Your task to perform on an android device: open app "Viber Messenger" (install if not already installed) and go to login screen Image 0: 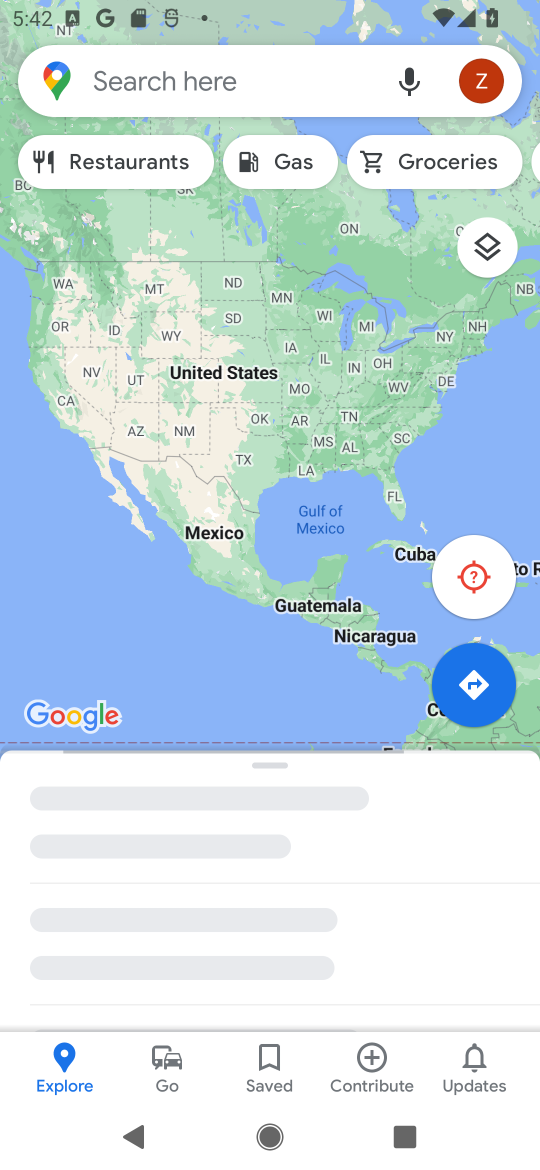
Step 0: press home button
Your task to perform on an android device: open app "Viber Messenger" (install if not already installed) and go to login screen Image 1: 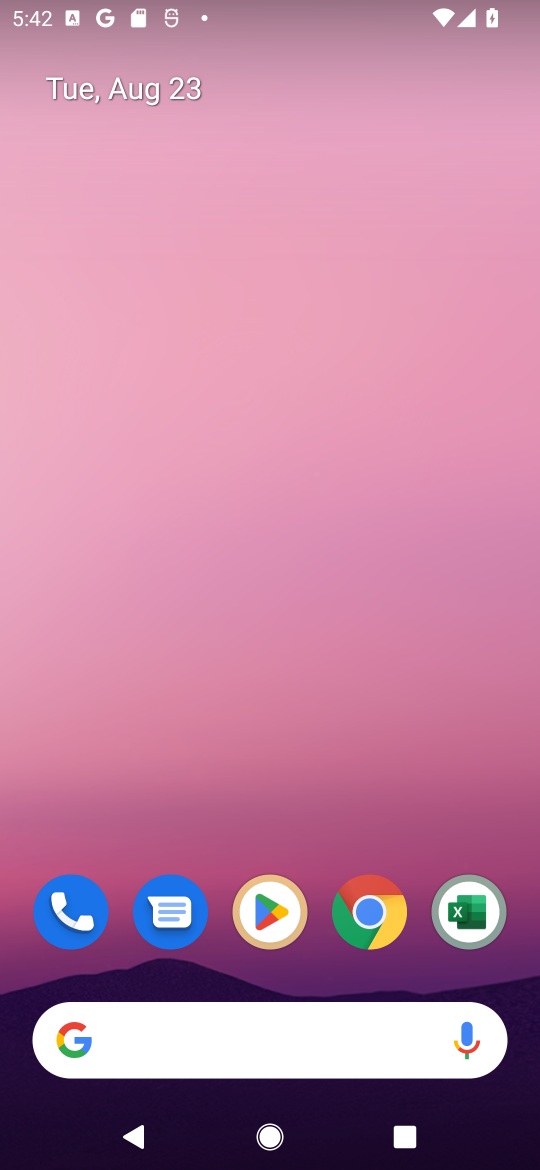
Step 1: click (249, 926)
Your task to perform on an android device: open app "Viber Messenger" (install if not already installed) and go to login screen Image 2: 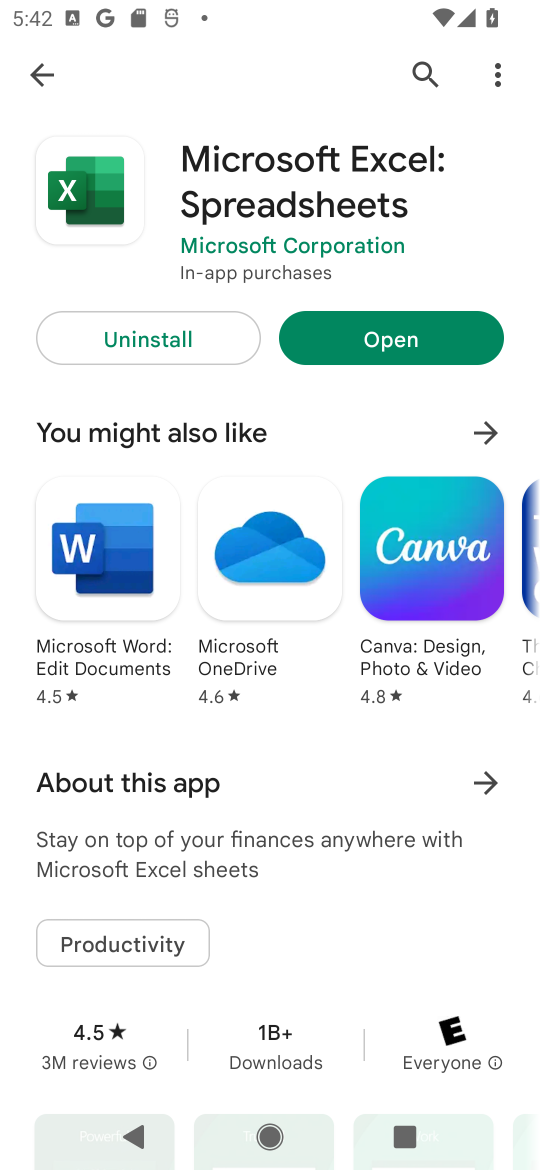
Step 2: click (42, 73)
Your task to perform on an android device: open app "Viber Messenger" (install if not already installed) and go to login screen Image 3: 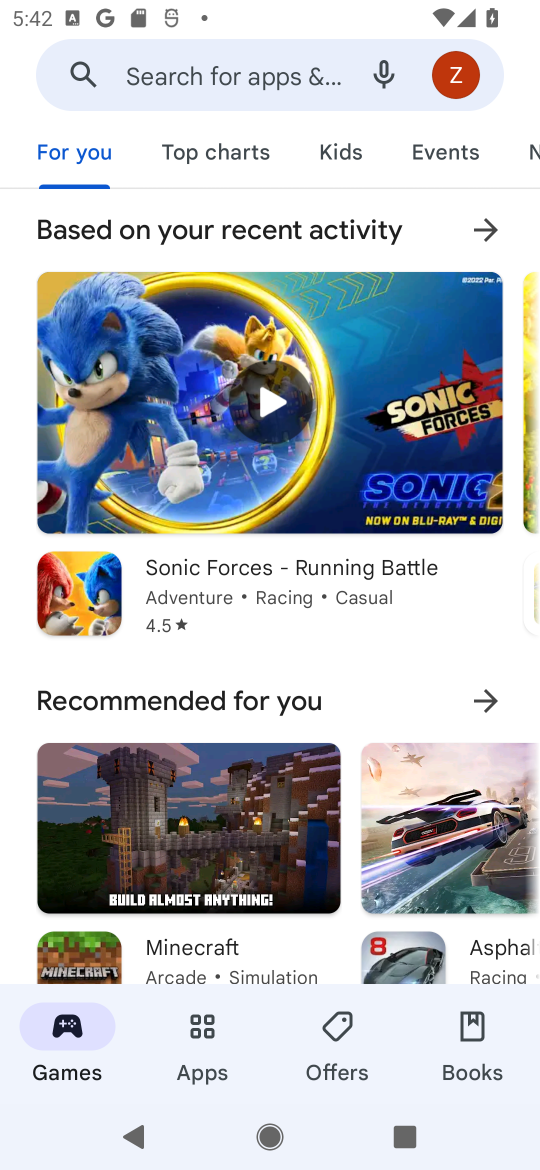
Step 3: click (260, 57)
Your task to perform on an android device: open app "Viber Messenger" (install if not already installed) and go to login screen Image 4: 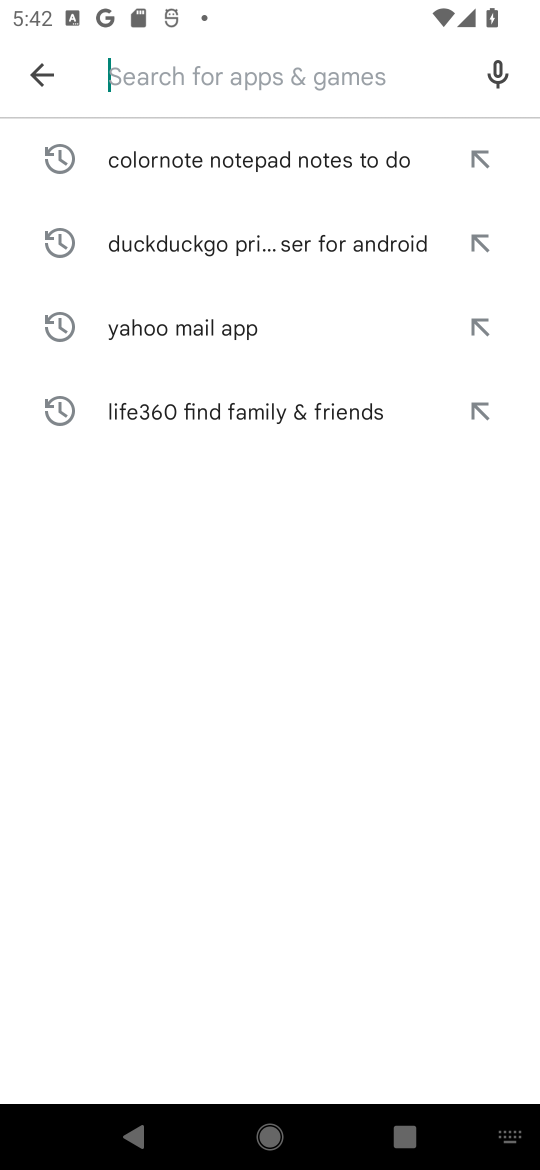
Step 4: type "Viber Messenger "
Your task to perform on an android device: open app "Viber Messenger" (install if not already installed) and go to login screen Image 5: 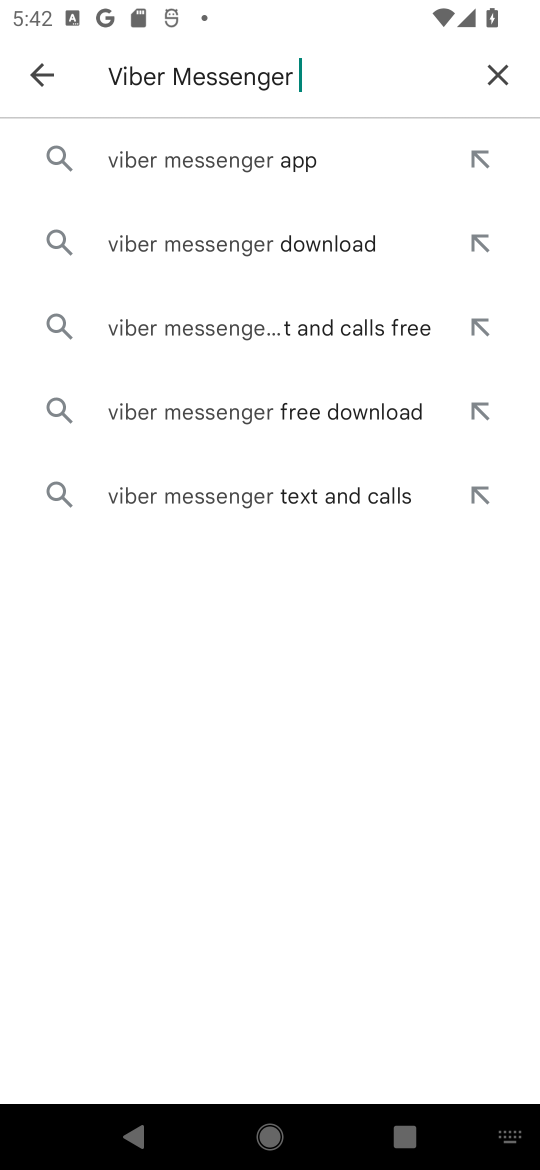
Step 5: click (190, 160)
Your task to perform on an android device: open app "Viber Messenger" (install if not already installed) and go to login screen Image 6: 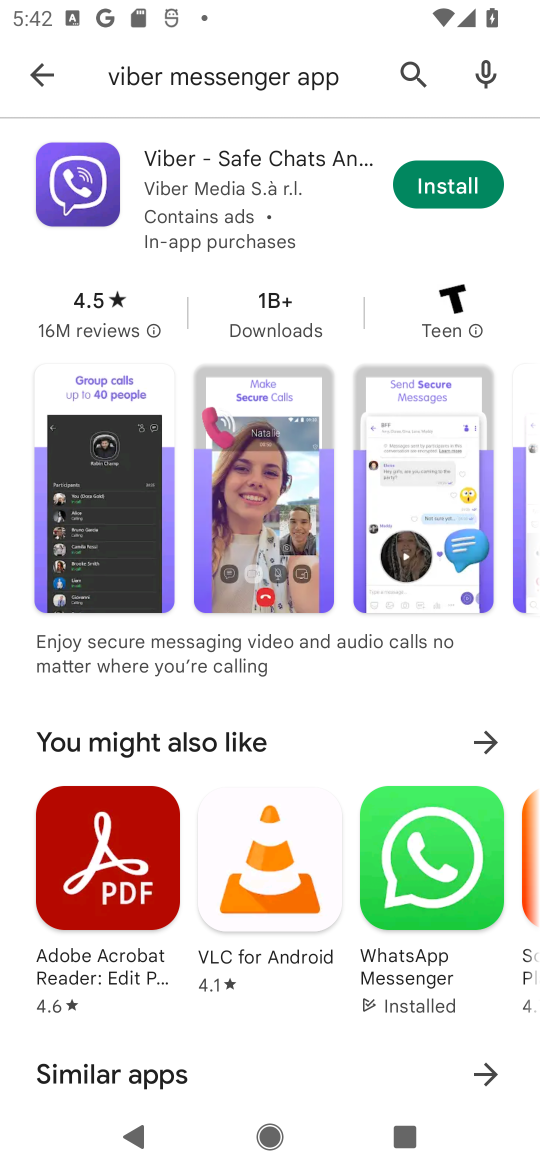
Step 6: click (445, 203)
Your task to perform on an android device: open app "Viber Messenger" (install if not already installed) and go to login screen Image 7: 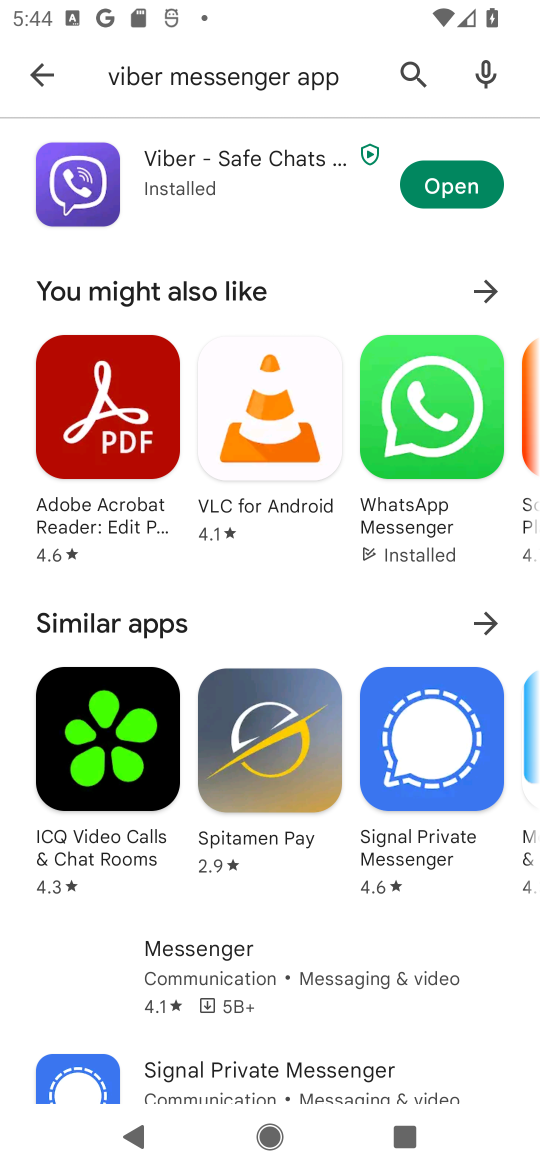
Step 7: task complete